Your task to perform on an android device: set the timer Image 0: 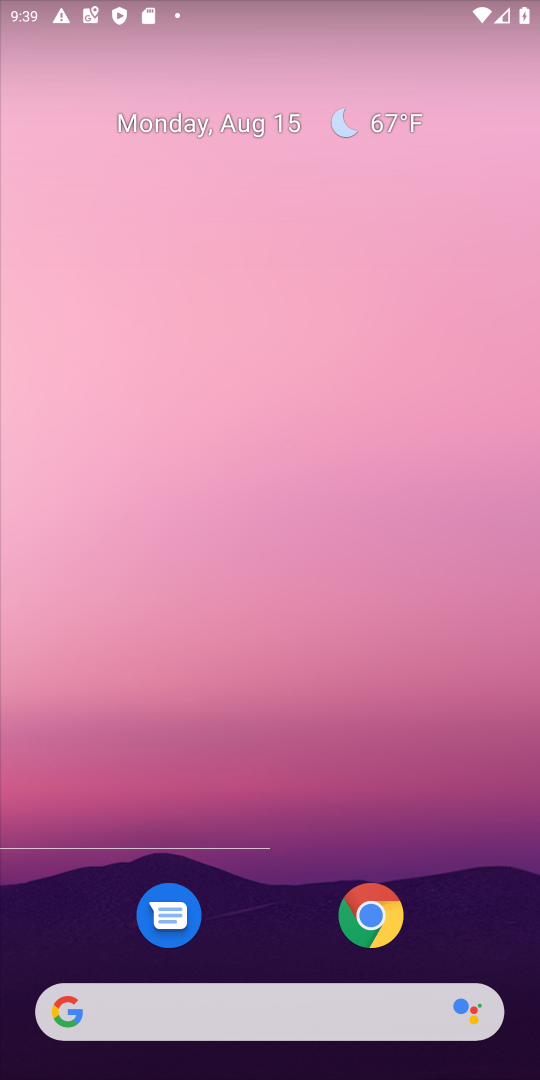
Step 0: press home button
Your task to perform on an android device: set the timer Image 1: 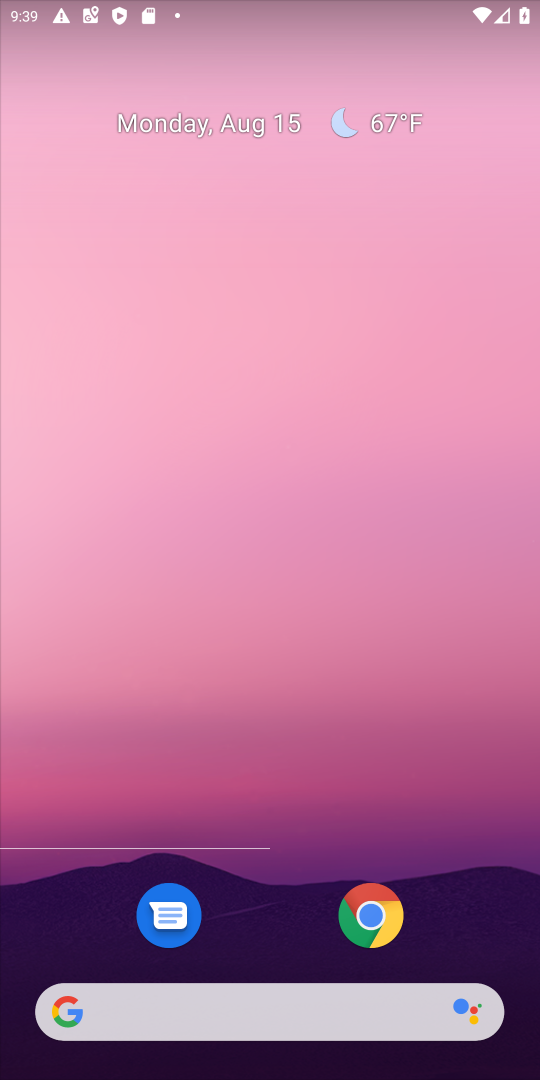
Step 1: drag from (269, 878) to (151, 230)
Your task to perform on an android device: set the timer Image 2: 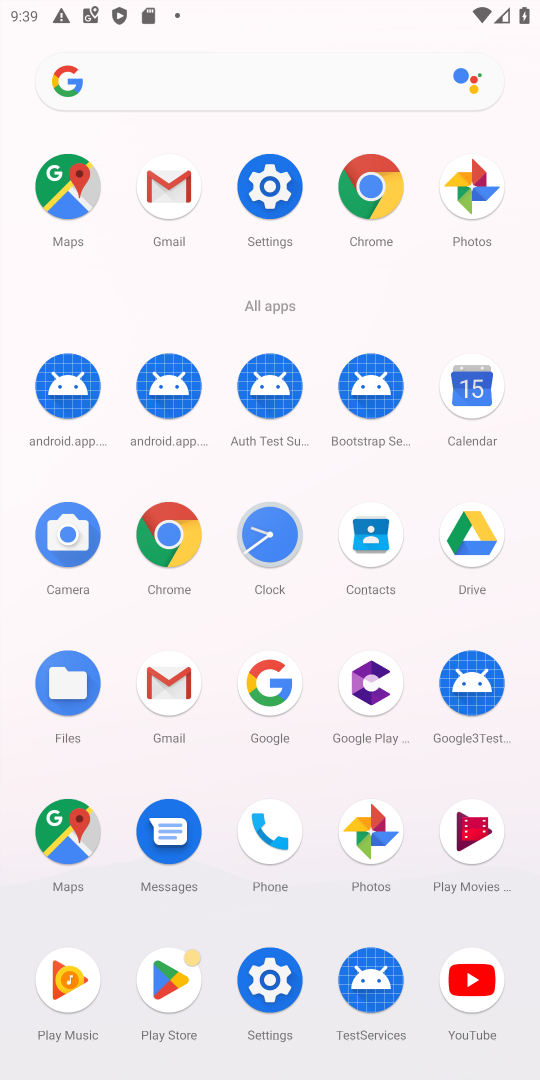
Step 2: click (284, 546)
Your task to perform on an android device: set the timer Image 3: 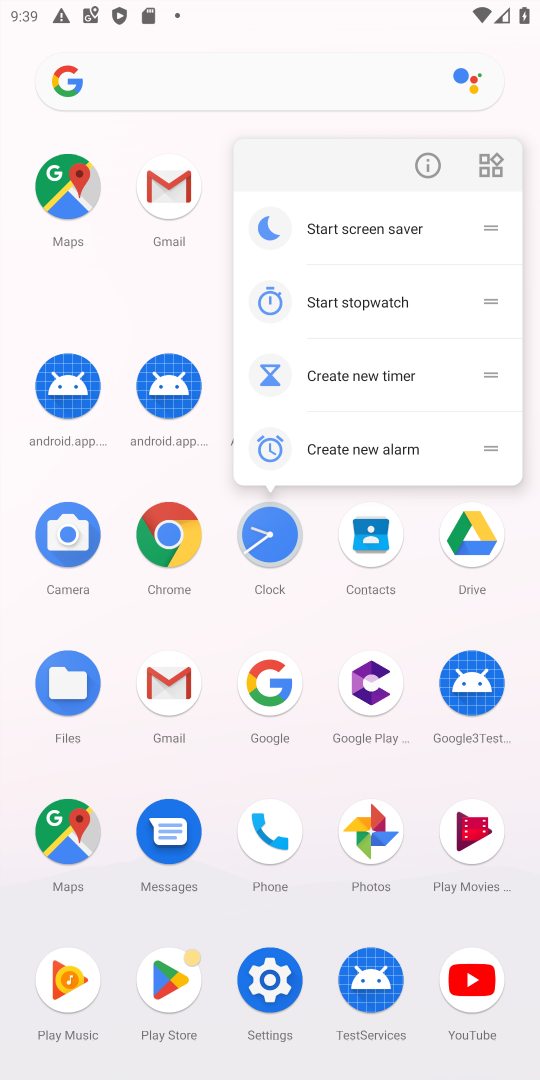
Step 3: click (281, 541)
Your task to perform on an android device: set the timer Image 4: 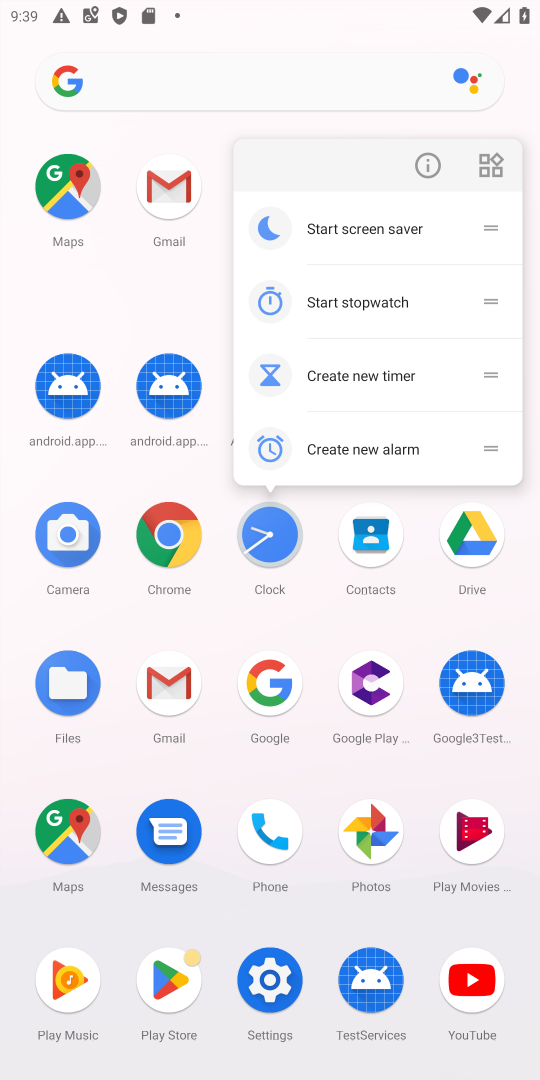
Step 4: click (281, 541)
Your task to perform on an android device: set the timer Image 5: 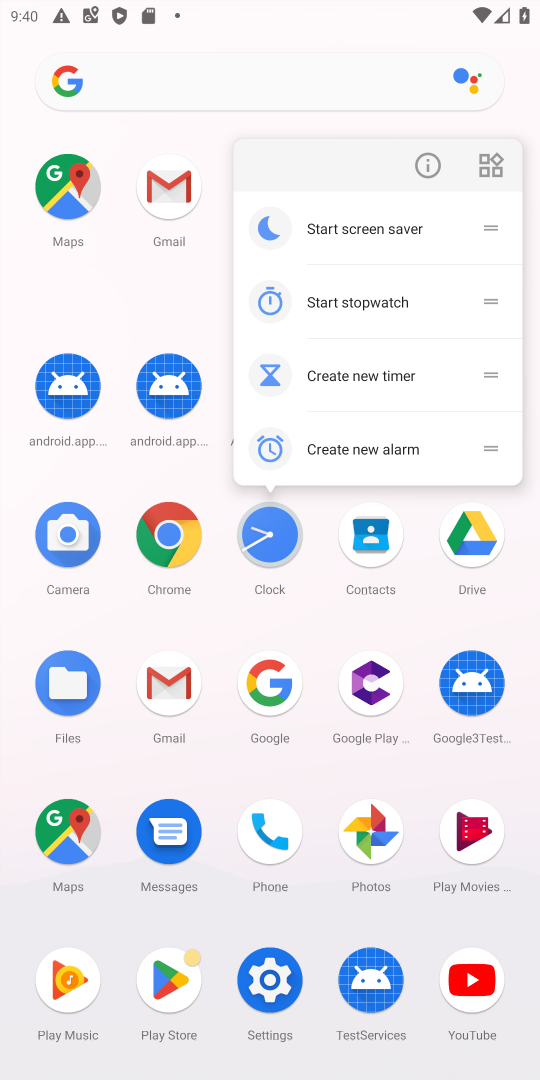
Step 5: click (268, 545)
Your task to perform on an android device: set the timer Image 6: 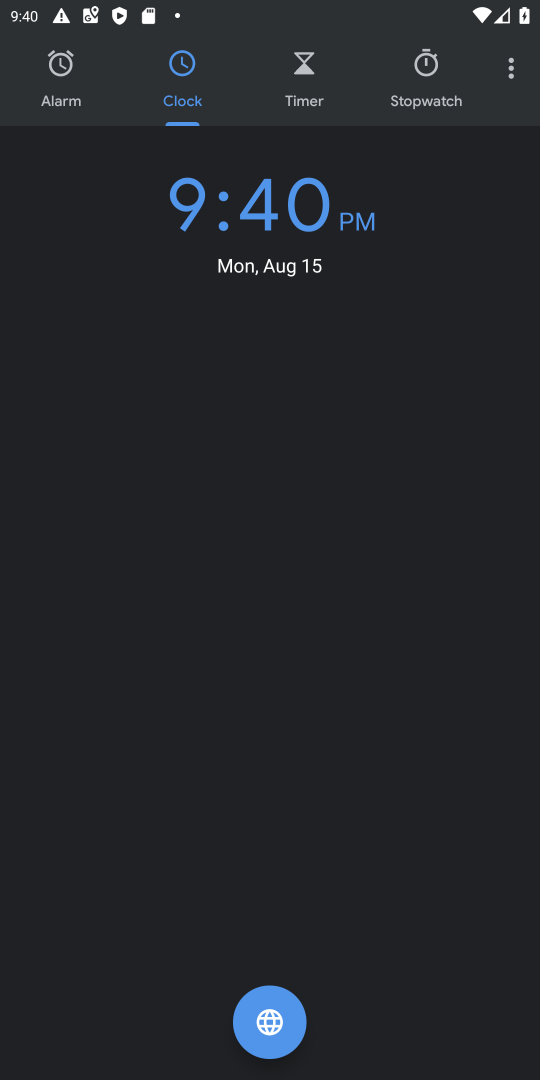
Step 6: click (313, 74)
Your task to perform on an android device: set the timer Image 7: 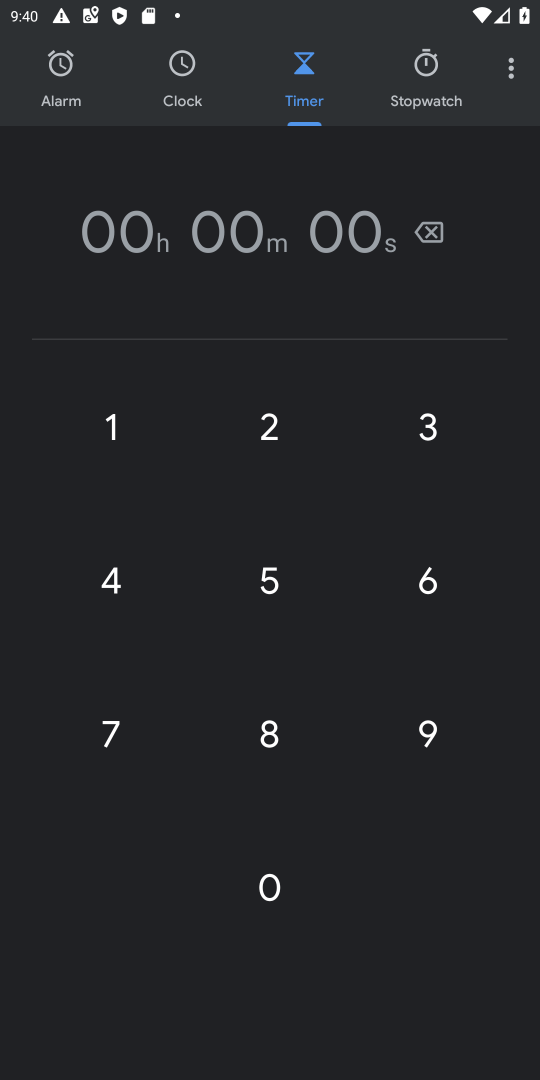
Step 7: click (270, 594)
Your task to perform on an android device: set the timer Image 8: 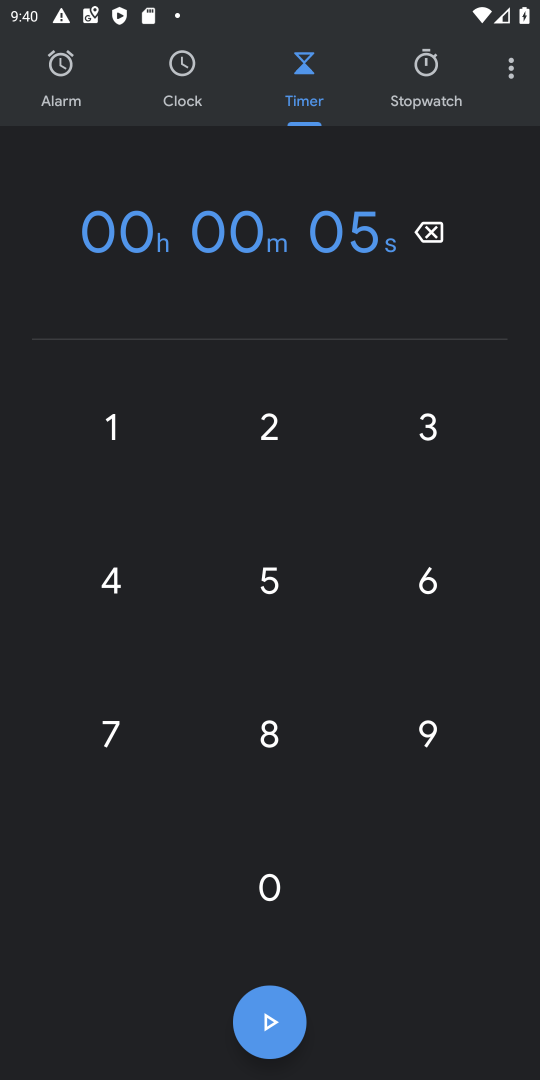
Step 8: click (260, 720)
Your task to perform on an android device: set the timer Image 9: 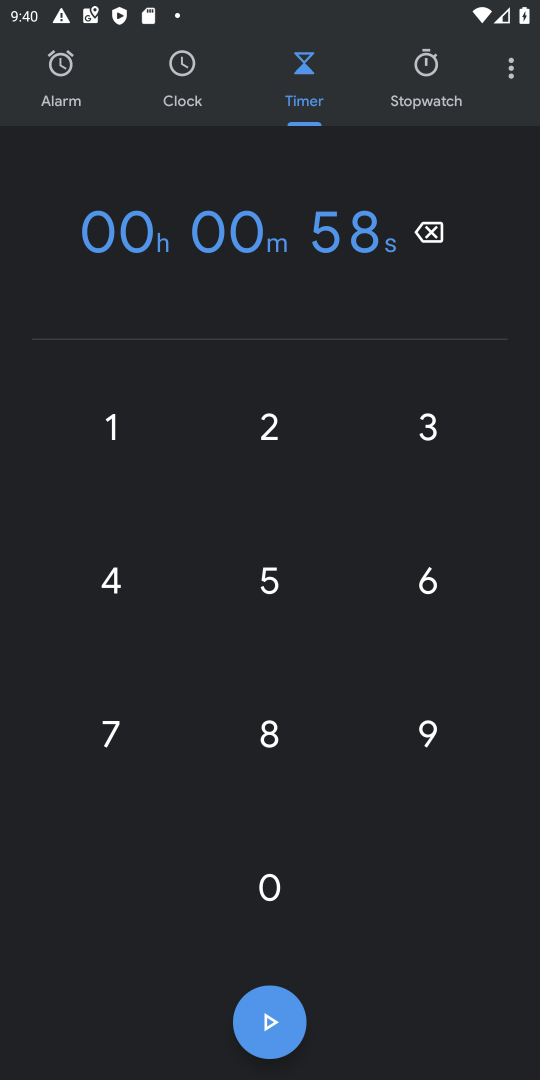
Step 9: click (258, 720)
Your task to perform on an android device: set the timer Image 10: 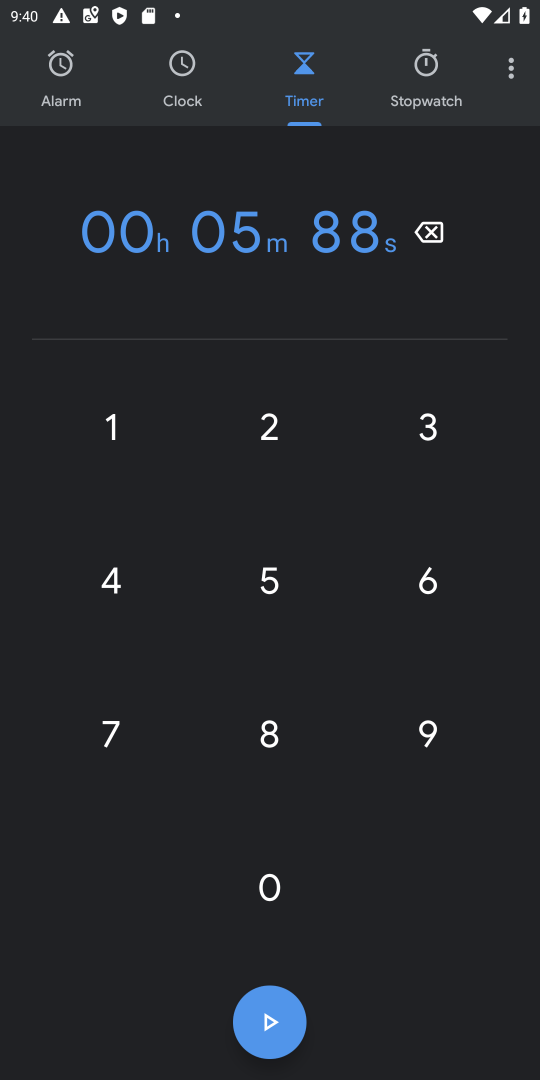
Step 10: click (258, 720)
Your task to perform on an android device: set the timer Image 11: 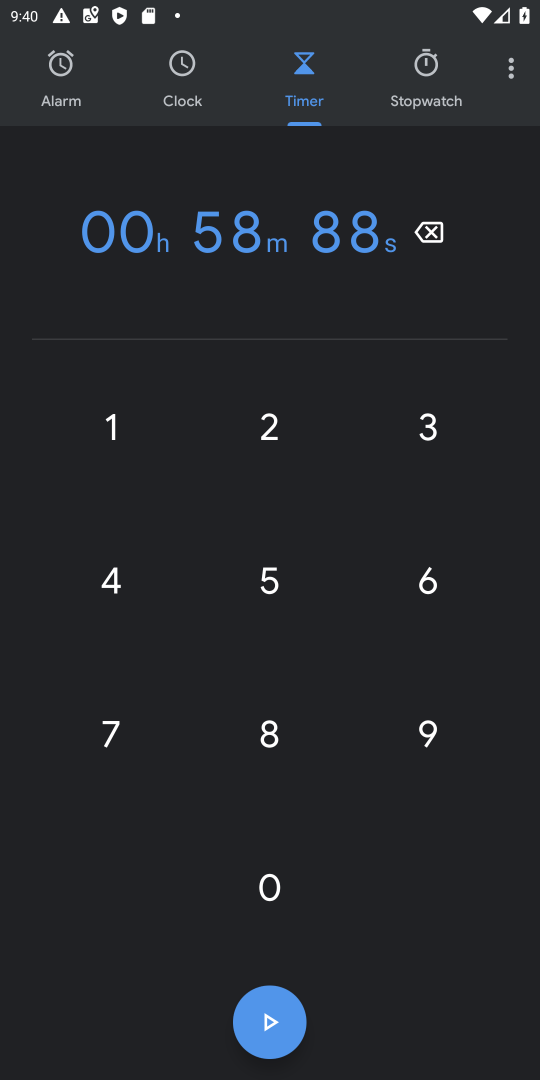
Step 11: click (270, 458)
Your task to perform on an android device: set the timer Image 12: 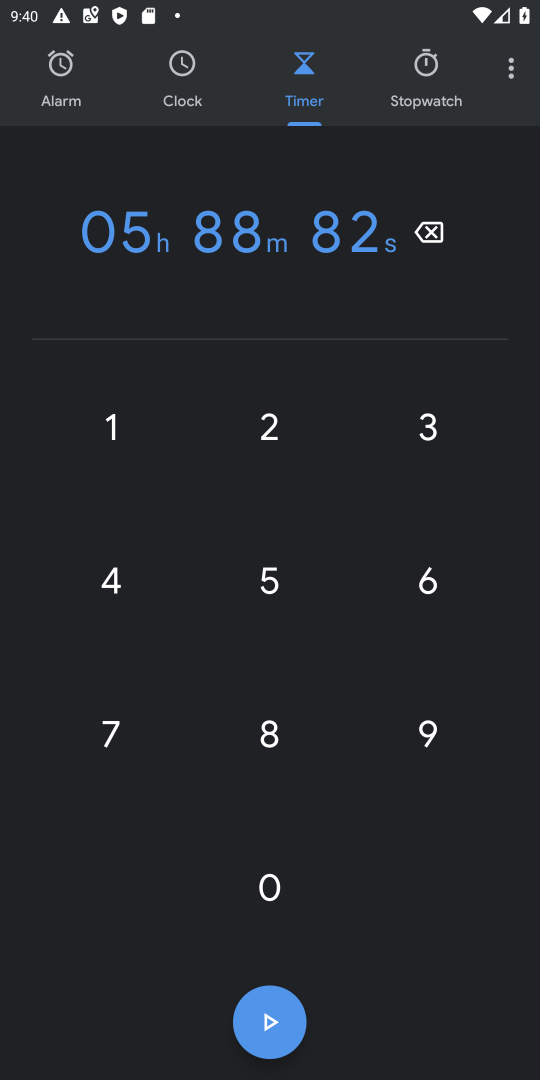
Step 12: click (271, 1025)
Your task to perform on an android device: set the timer Image 13: 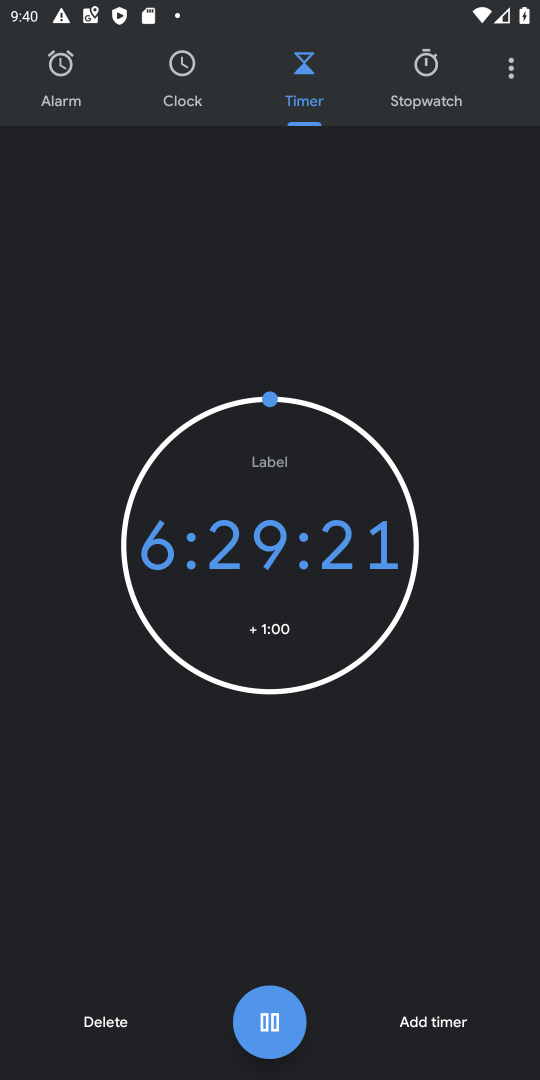
Step 13: task complete